Your task to perform on an android device: turn off notifications in google photos Image 0: 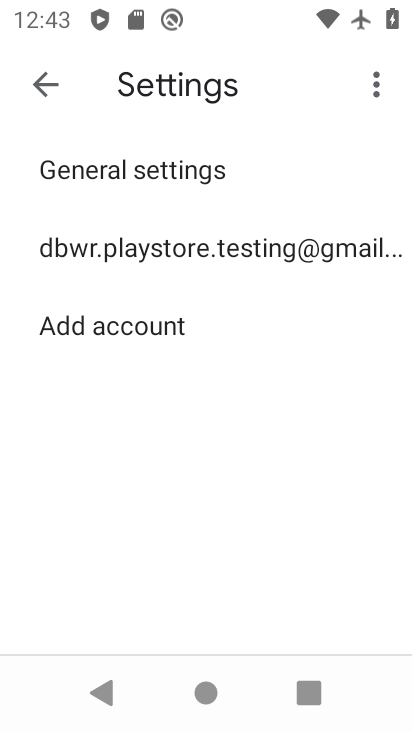
Step 0: press home button
Your task to perform on an android device: turn off notifications in google photos Image 1: 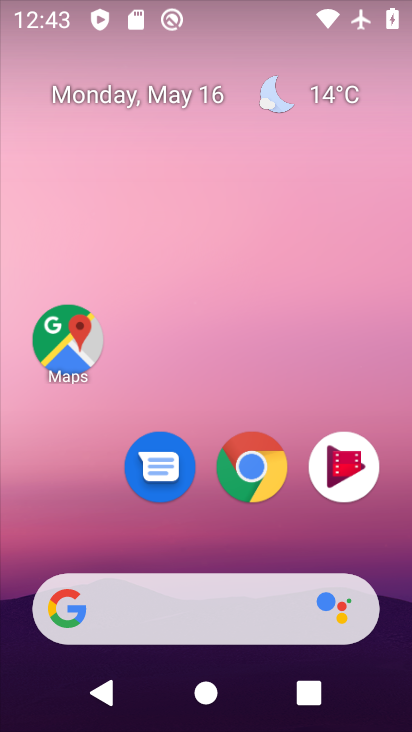
Step 1: drag from (269, 534) to (406, 161)
Your task to perform on an android device: turn off notifications in google photos Image 2: 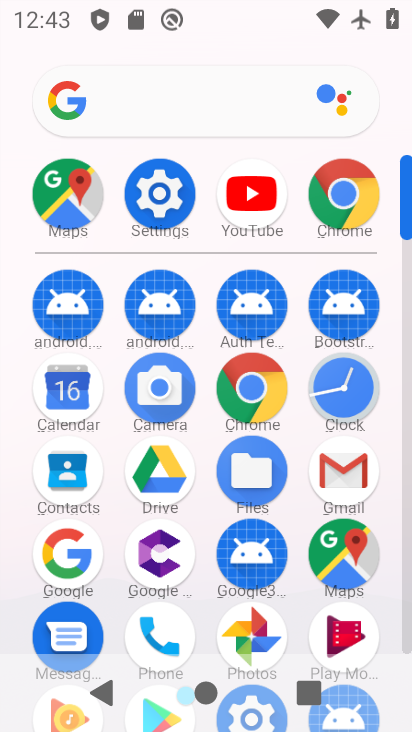
Step 2: click (157, 181)
Your task to perform on an android device: turn off notifications in google photos Image 3: 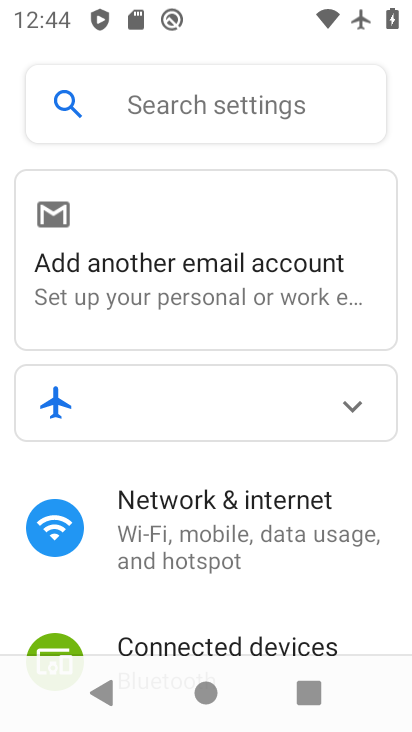
Step 3: press home button
Your task to perform on an android device: turn off notifications in google photos Image 4: 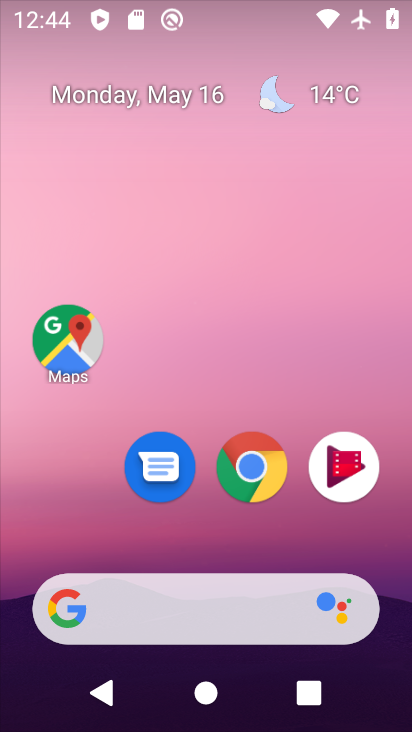
Step 4: drag from (183, 566) to (350, 98)
Your task to perform on an android device: turn off notifications in google photos Image 5: 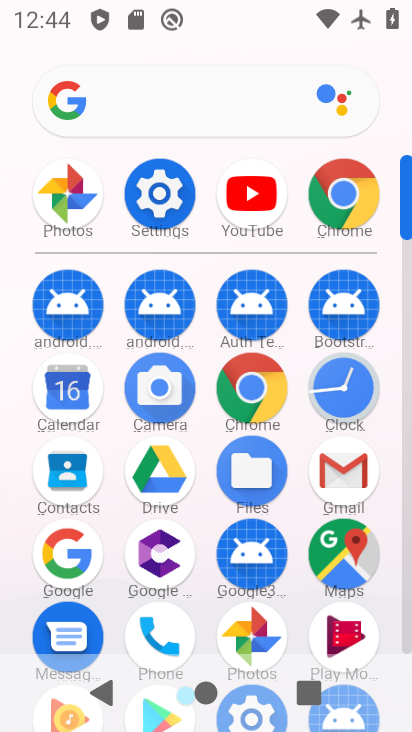
Step 5: click (244, 639)
Your task to perform on an android device: turn off notifications in google photos Image 6: 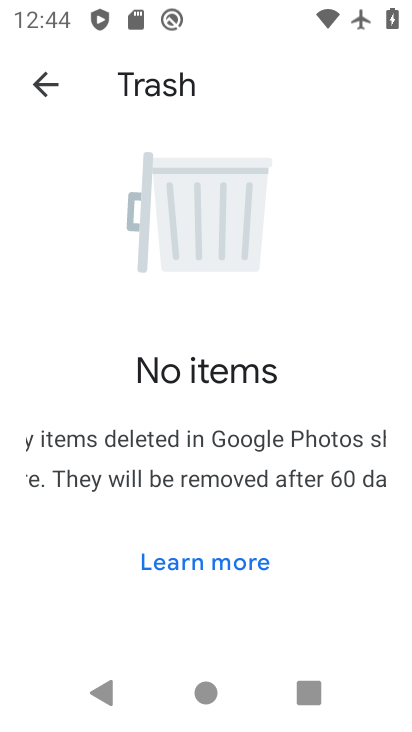
Step 6: click (58, 91)
Your task to perform on an android device: turn off notifications in google photos Image 7: 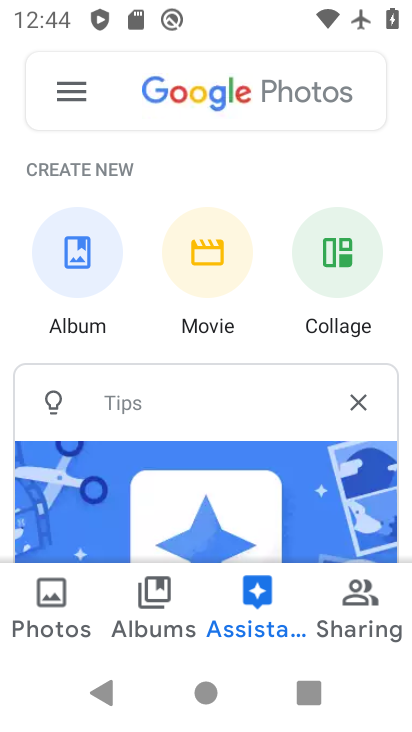
Step 7: click (69, 81)
Your task to perform on an android device: turn off notifications in google photos Image 8: 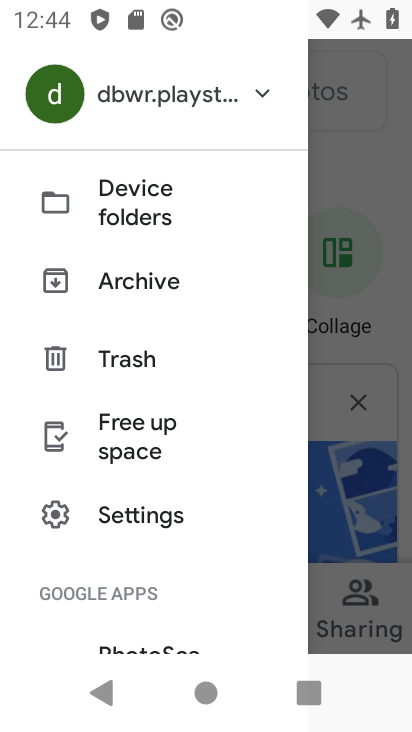
Step 8: click (121, 516)
Your task to perform on an android device: turn off notifications in google photos Image 9: 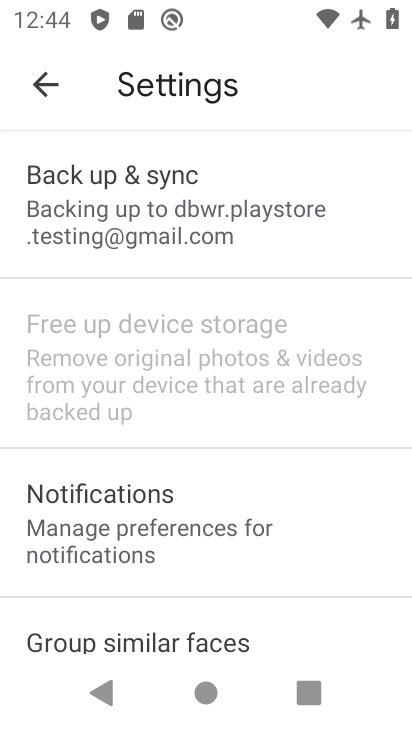
Step 9: click (69, 506)
Your task to perform on an android device: turn off notifications in google photos Image 10: 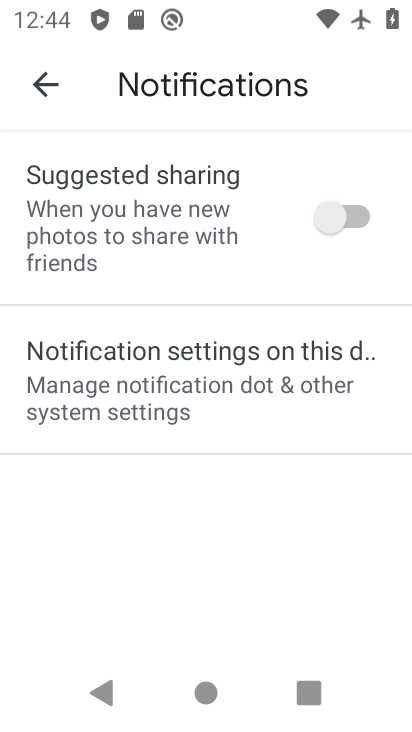
Step 10: click (229, 380)
Your task to perform on an android device: turn off notifications in google photos Image 11: 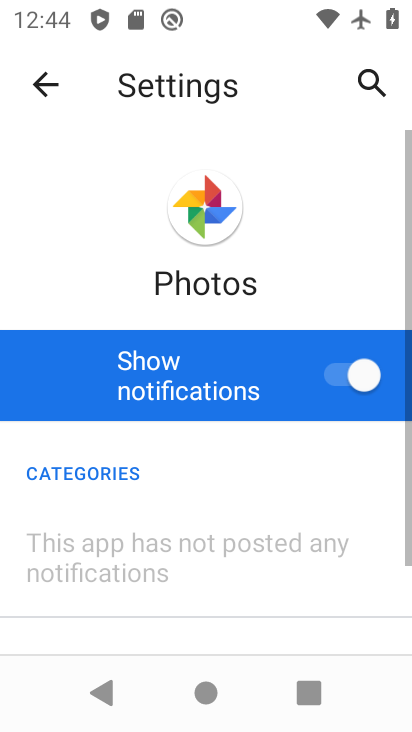
Step 11: click (340, 371)
Your task to perform on an android device: turn off notifications in google photos Image 12: 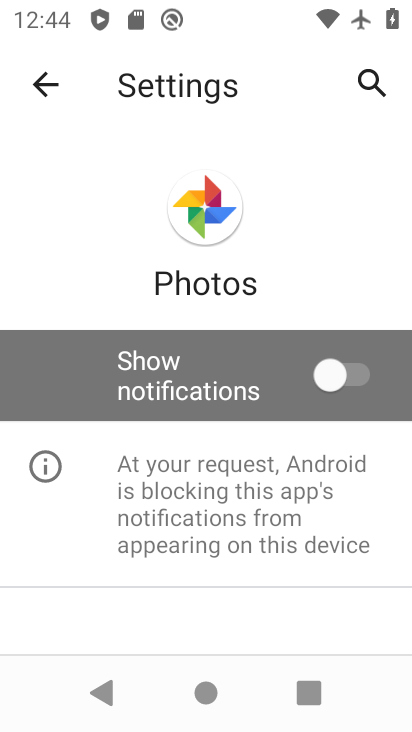
Step 12: task complete